Your task to perform on an android device: Open CNN.com Image 0: 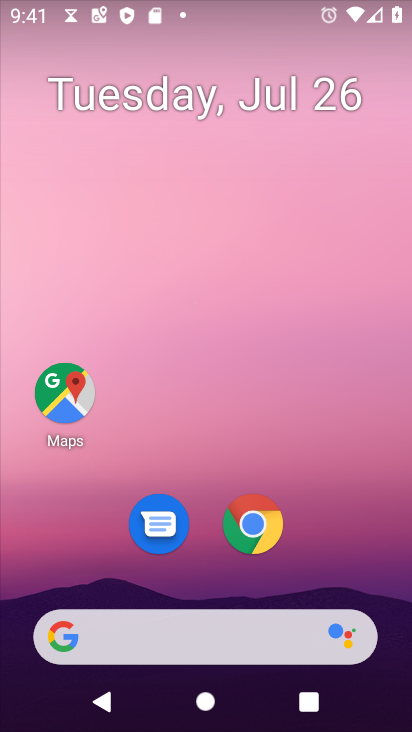
Step 0: click (249, 526)
Your task to perform on an android device: Open CNN.com Image 1: 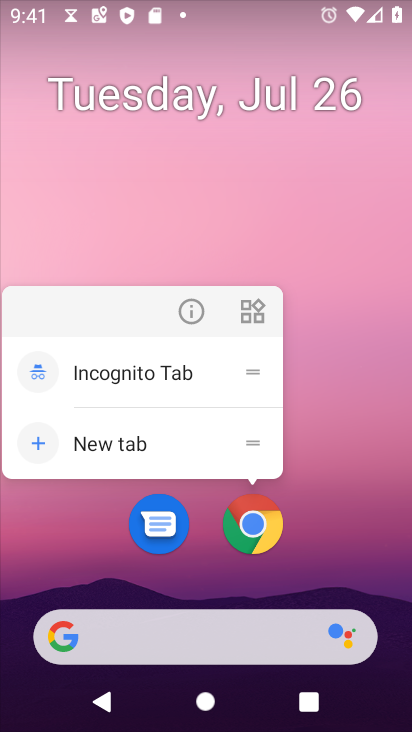
Step 1: click (249, 526)
Your task to perform on an android device: Open CNN.com Image 2: 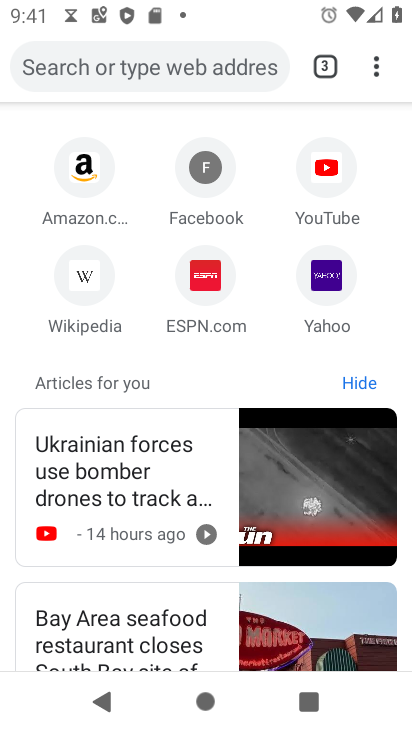
Step 2: click (133, 61)
Your task to perform on an android device: Open CNN.com Image 3: 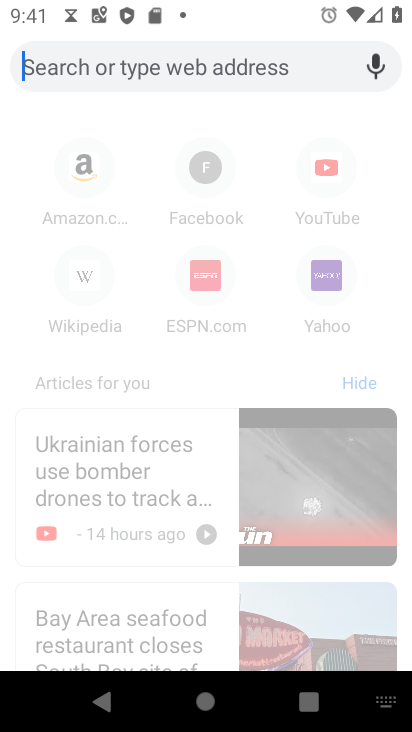
Step 3: type "cnn.com"
Your task to perform on an android device: Open CNN.com Image 4: 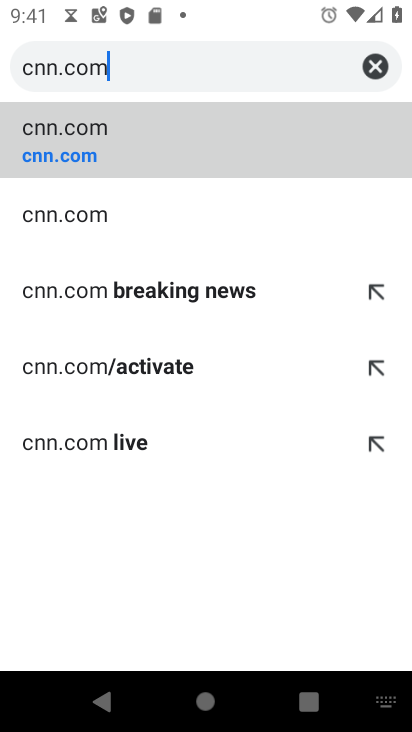
Step 4: click (94, 152)
Your task to perform on an android device: Open CNN.com Image 5: 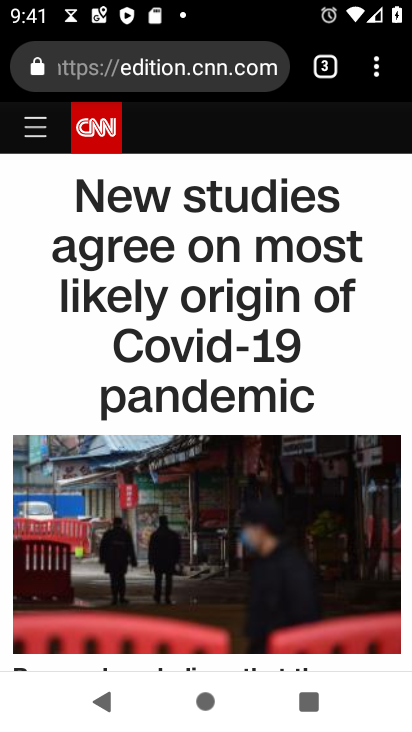
Step 5: drag from (267, 580) to (357, 213)
Your task to perform on an android device: Open CNN.com Image 6: 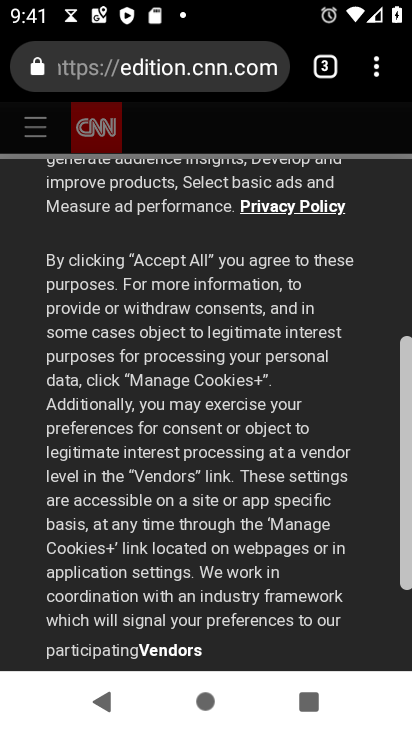
Step 6: drag from (231, 592) to (367, 215)
Your task to perform on an android device: Open CNN.com Image 7: 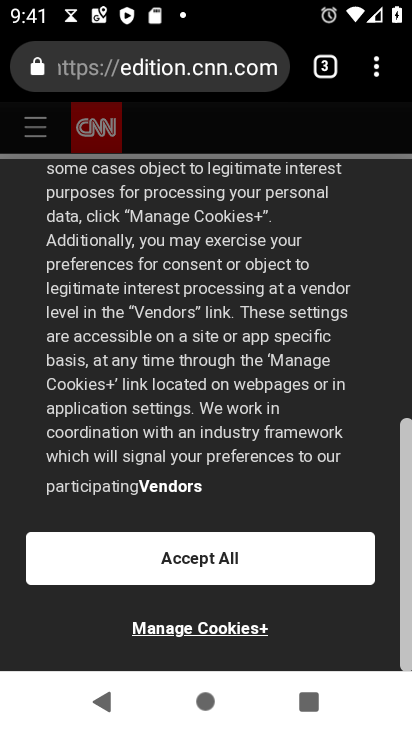
Step 7: click (210, 563)
Your task to perform on an android device: Open CNN.com Image 8: 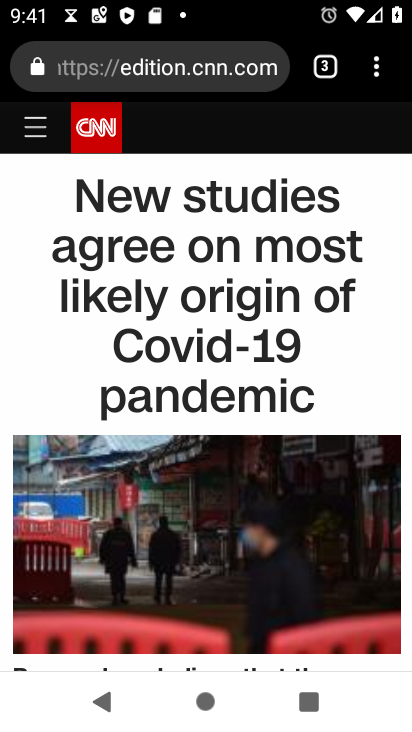
Step 8: task complete